Your task to perform on an android device: Search for seafood restaurants on Google Maps Image 0: 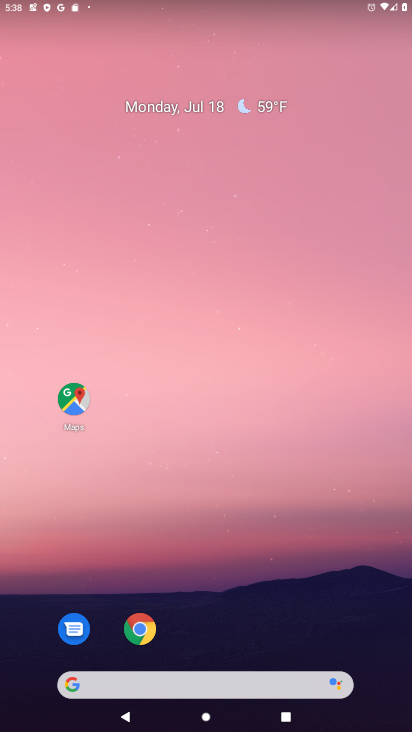
Step 0: drag from (297, 595) to (210, 42)
Your task to perform on an android device: Search for seafood restaurants on Google Maps Image 1: 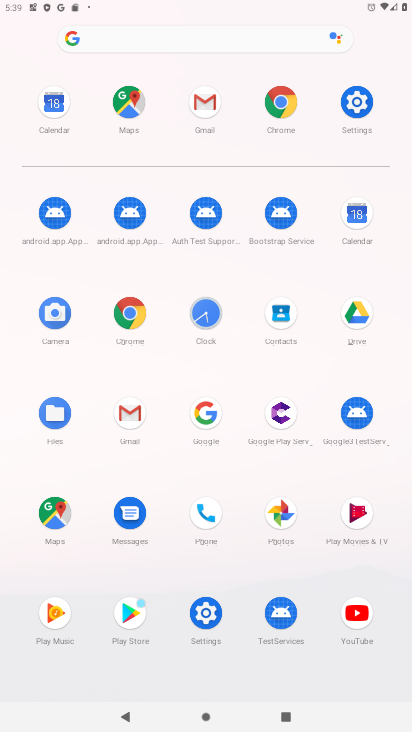
Step 1: click (128, 102)
Your task to perform on an android device: Search for seafood restaurants on Google Maps Image 2: 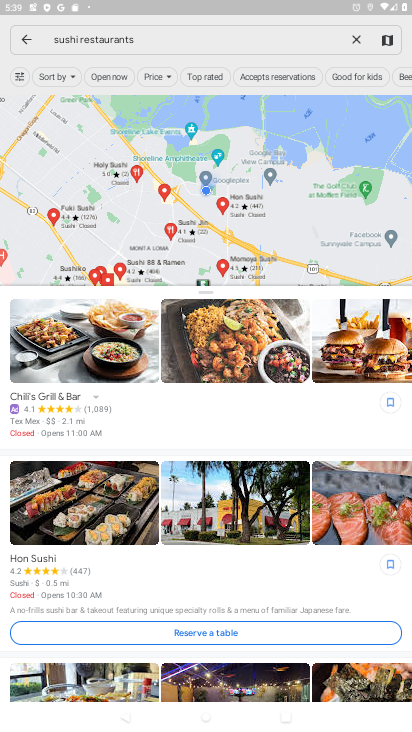
Step 2: task complete